Your task to perform on an android device: Open Android settings Image 0: 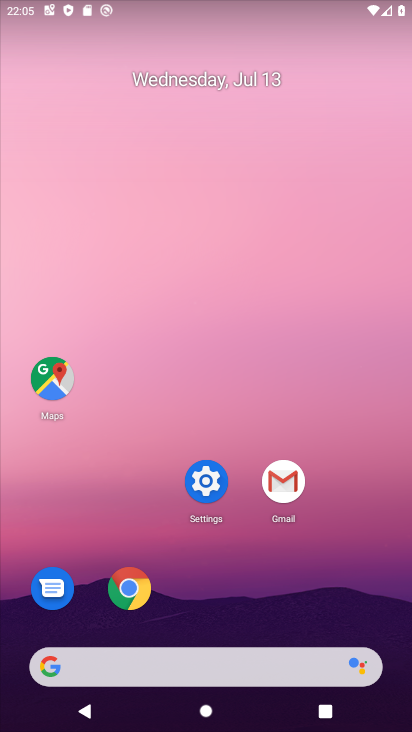
Step 0: click (213, 480)
Your task to perform on an android device: Open Android settings Image 1: 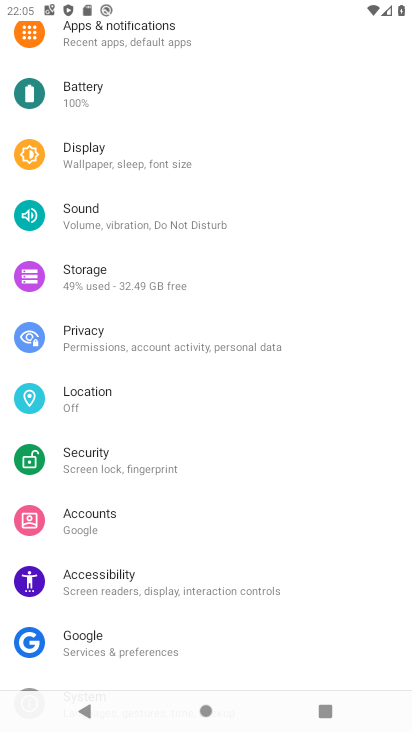
Step 1: task complete